Your task to perform on an android device: Open Chrome and go to settings Image 0: 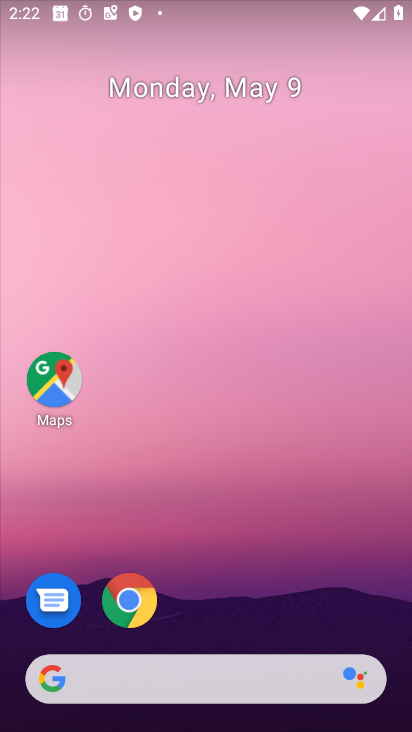
Step 0: drag from (238, 533) to (221, 208)
Your task to perform on an android device: Open Chrome and go to settings Image 1: 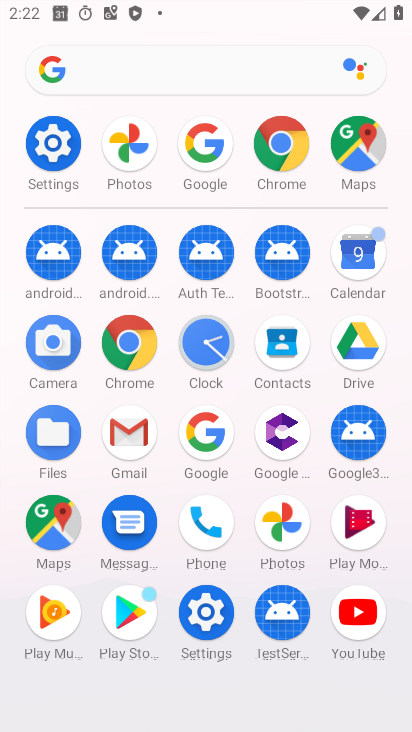
Step 1: click (137, 360)
Your task to perform on an android device: Open Chrome and go to settings Image 2: 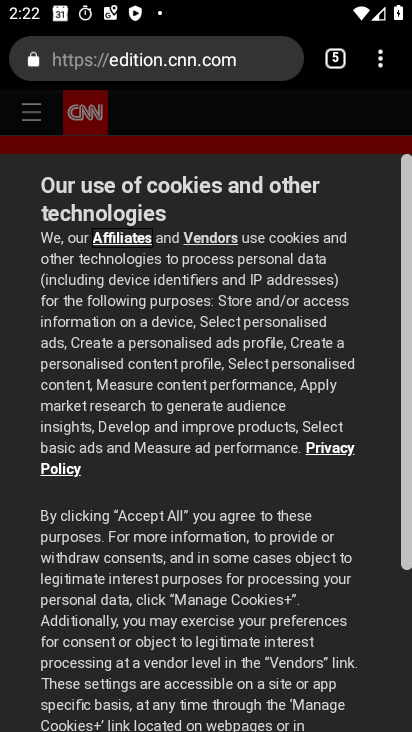
Step 2: click (366, 100)
Your task to perform on an android device: Open Chrome and go to settings Image 3: 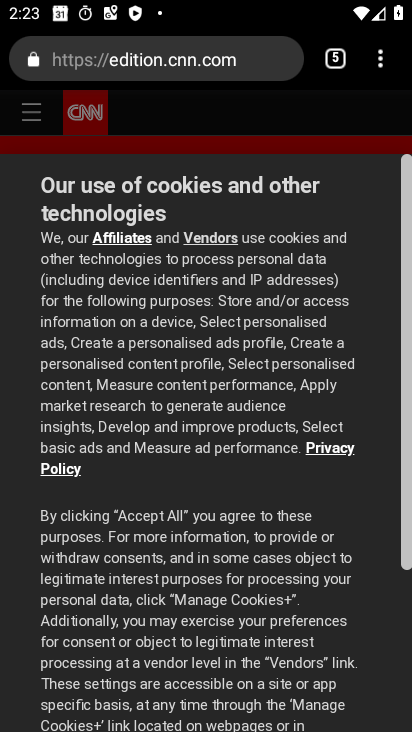
Step 3: click (378, 70)
Your task to perform on an android device: Open Chrome and go to settings Image 4: 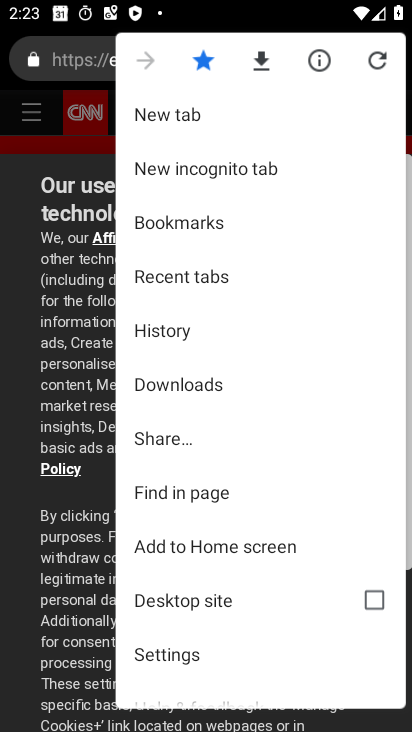
Step 4: click (196, 656)
Your task to perform on an android device: Open Chrome and go to settings Image 5: 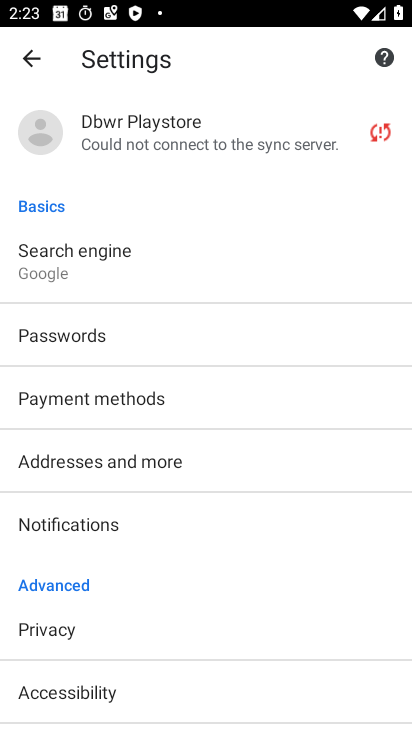
Step 5: task complete